Your task to perform on an android device: allow cookies in the chrome app Image 0: 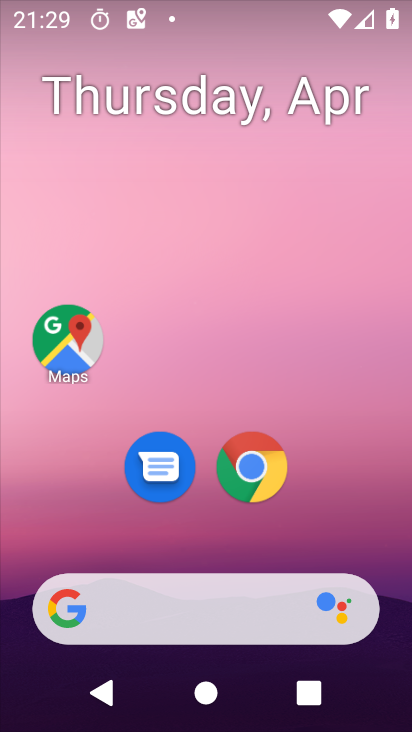
Step 0: drag from (214, 560) to (382, 145)
Your task to perform on an android device: allow cookies in the chrome app Image 1: 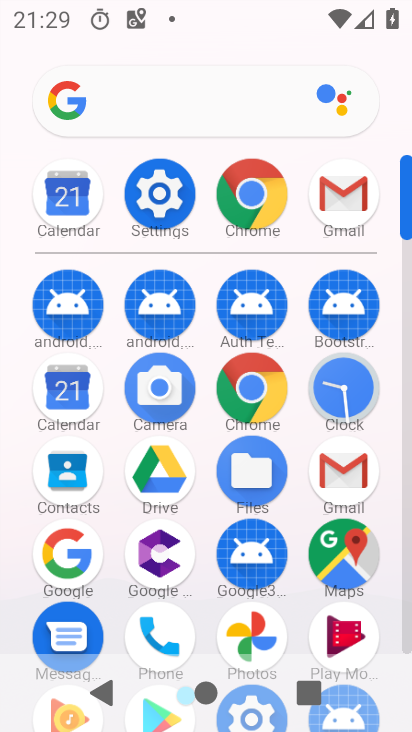
Step 1: click (251, 406)
Your task to perform on an android device: allow cookies in the chrome app Image 2: 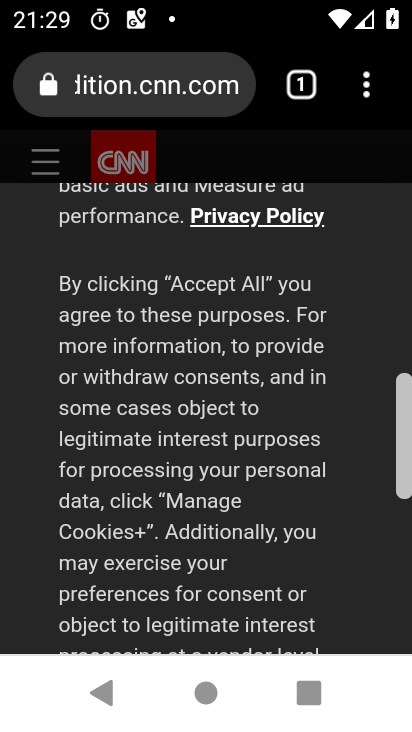
Step 2: click (359, 98)
Your task to perform on an android device: allow cookies in the chrome app Image 3: 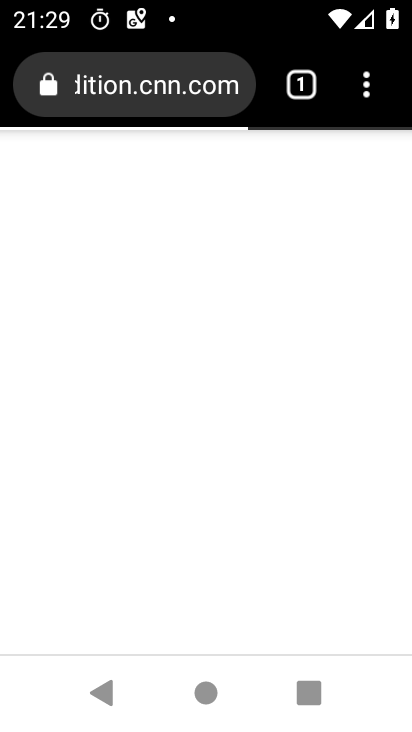
Step 3: click (372, 79)
Your task to perform on an android device: allow cookies in the chrome app Image 4: 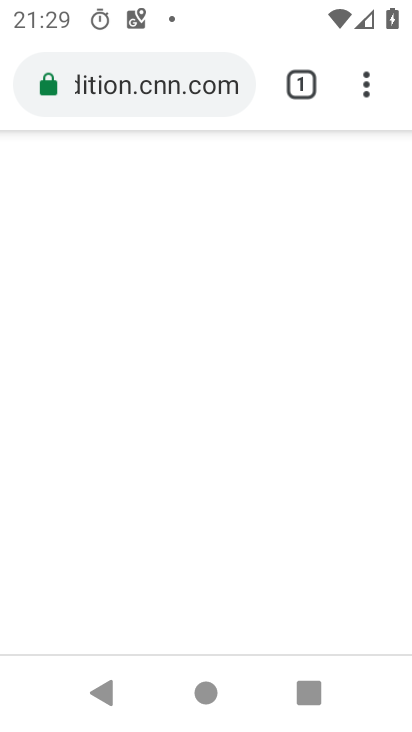
Step 4: click (366, 81)
Your task to perform on an android device: allow cookies in the chrome app Image 5: 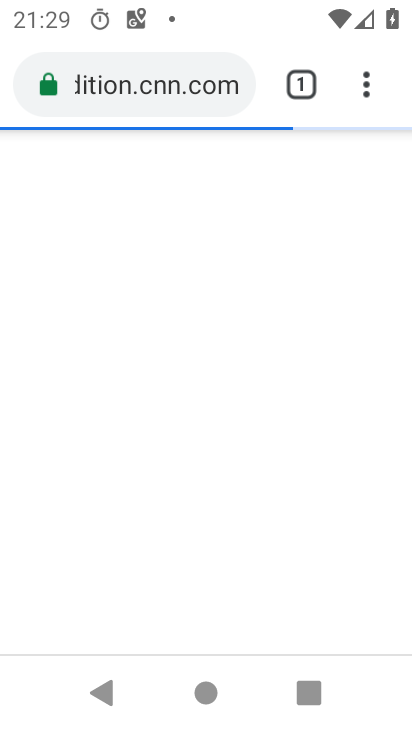
Step 5: drag from (363, 88) to (221, 508)
Your task to perform on an android device: allow cookies in the chrome app Image 6: 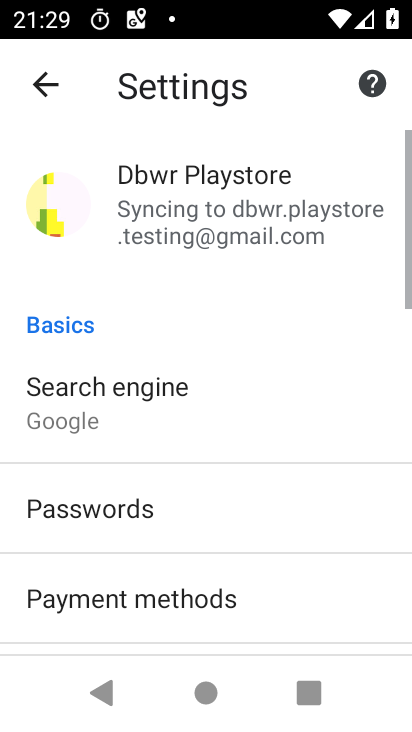
Step 6: drag from (216, 516) to (227, 104)
Your task to perform on an android device: allow cookies in the chrome app Image 7: 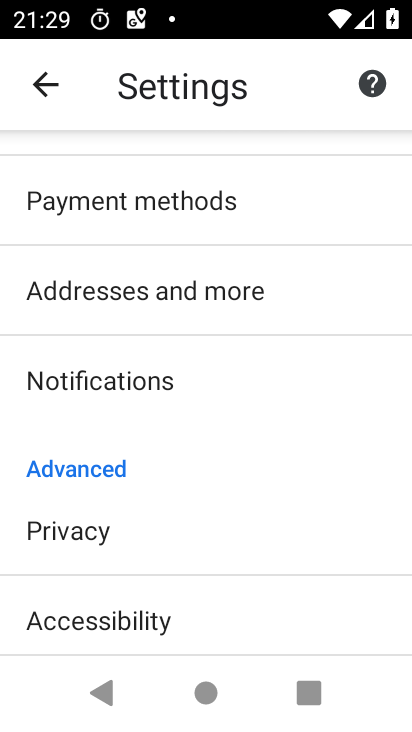
Step 7: click (119, 533)
Your task to perform on an android device: allow cookies in the chrome app Image 8: 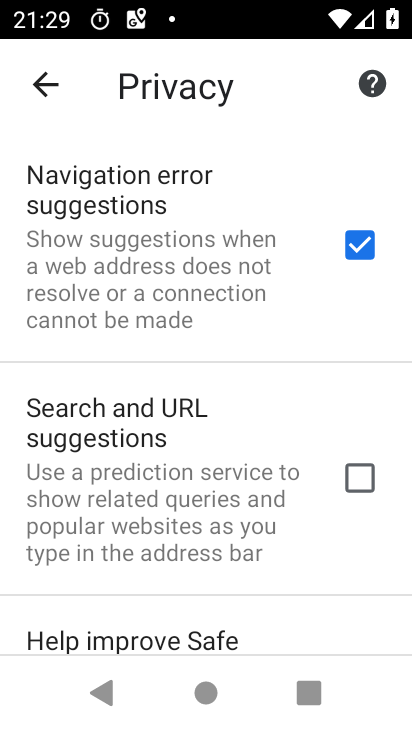
Step 8: click (48, 81)
Your task to perform on an android device: allow cookies in the chrome app Image 9: 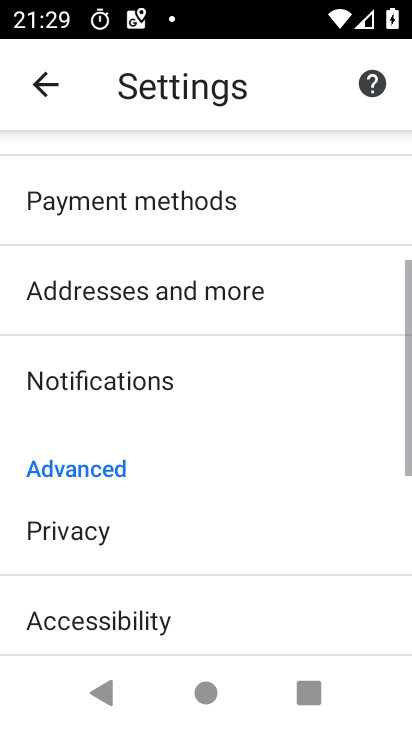
Step 9: drag from (104, 576) to (118, 117)
Your task to perform on an android device: allow cookies in the chrome app Image 10: 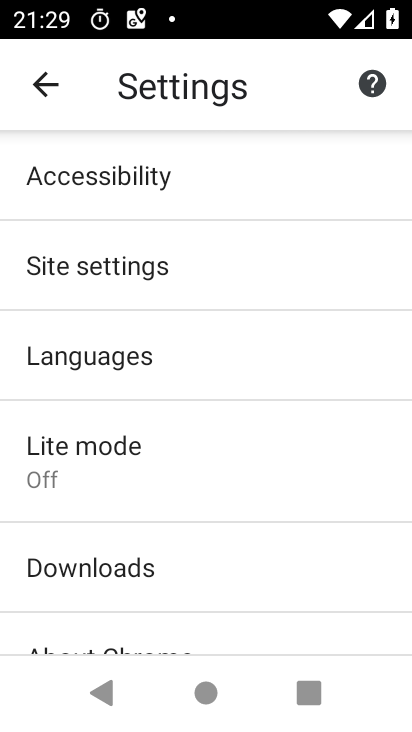
Step 10: click (141, 285)
Your task to perform on an android device: allow cookies in the chrome app Image 11: 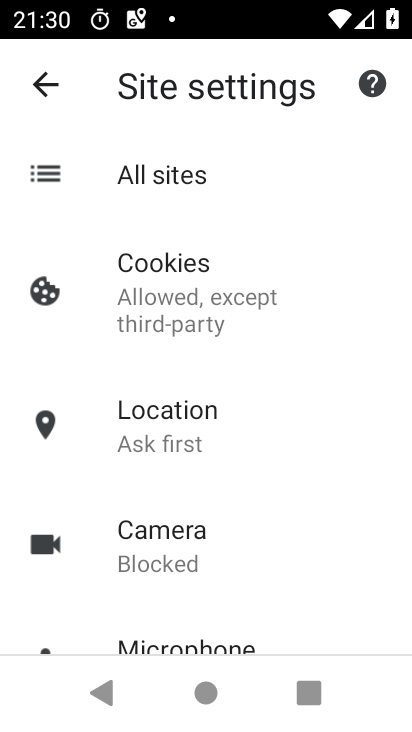
Step 11: click (141, 285)
Your task to perform on an android device: allow cookies in the chrome app Image 12: 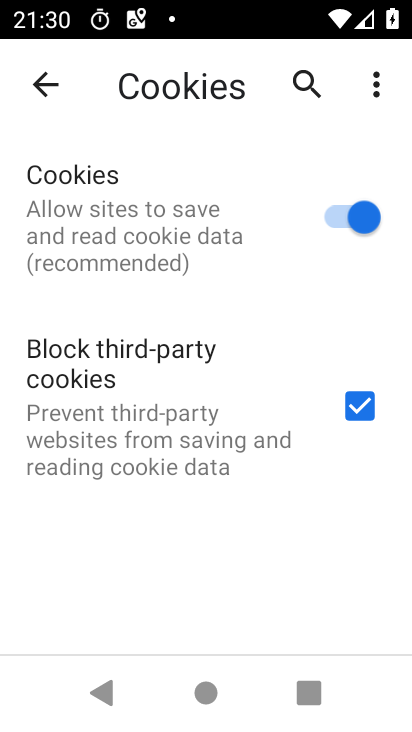
Step 12: task complete